Your task to perform on an android device: Open the Play Movies app and select the watchlist tab. Image 0: 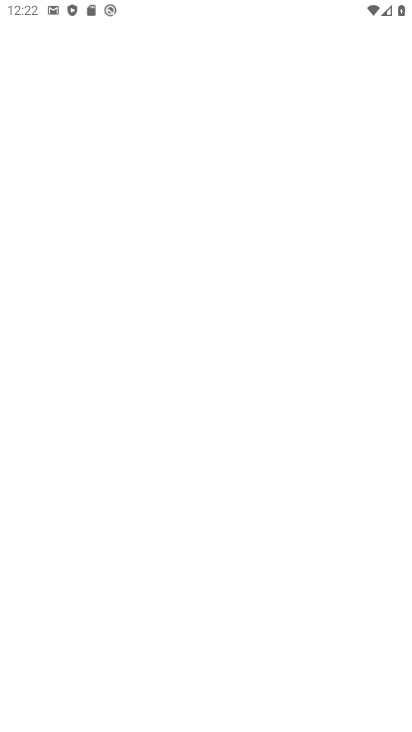
Step 0: click (140, 625)
Your task to perform on an android device: Open the Play Movies app and select the watchlist tab. Image 1: 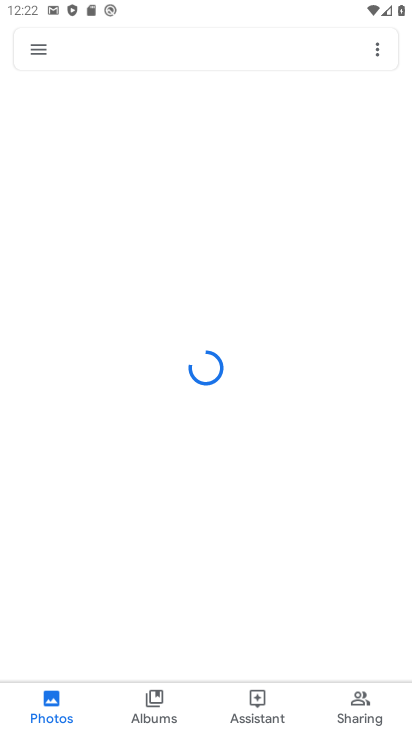
Step 1: press home button
Your task to perform on an android device: Open the Play Movies app and select the watchlist tab. Image 2: 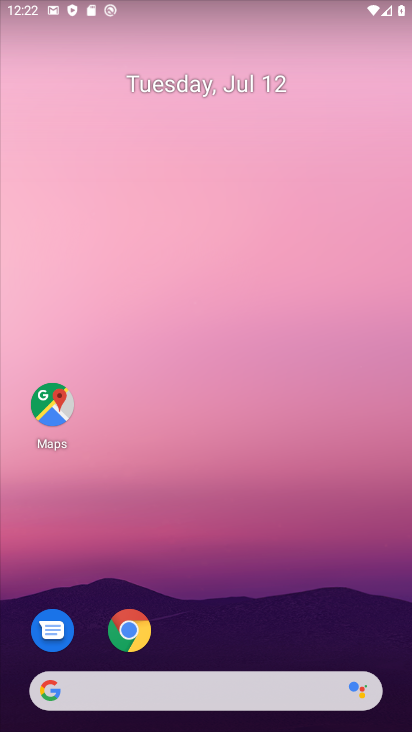
Step 2: drag from (282, 708) to (208, 196)
Your task to perform on an android device: Open the Play Movies app and select the watchlist tab. Image 3: 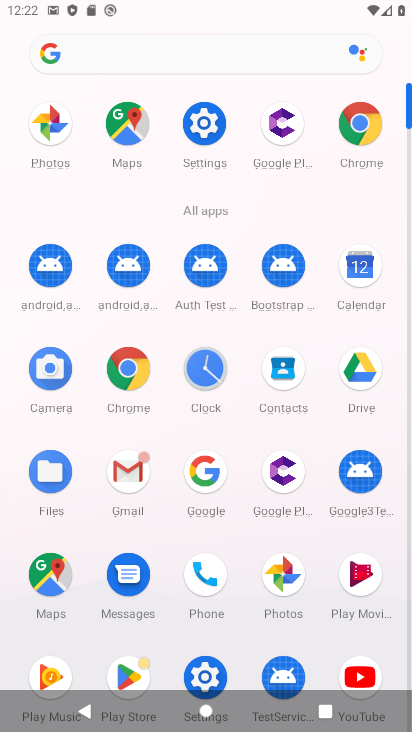
Step 3: click (359, 597)
Your task to perform on an android device: Open the Play Movies app and select the watchlist tab. Image 4: 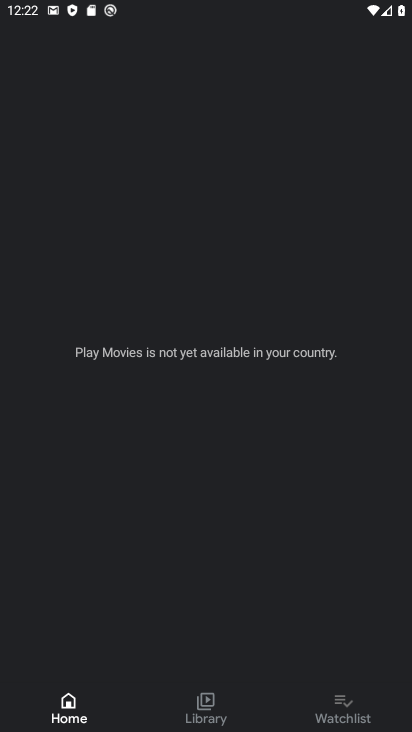
Step 4: click (348, 696)
Your task to perform on an android device: Open the Play Movies app and select the watchlist tab. Image 5: 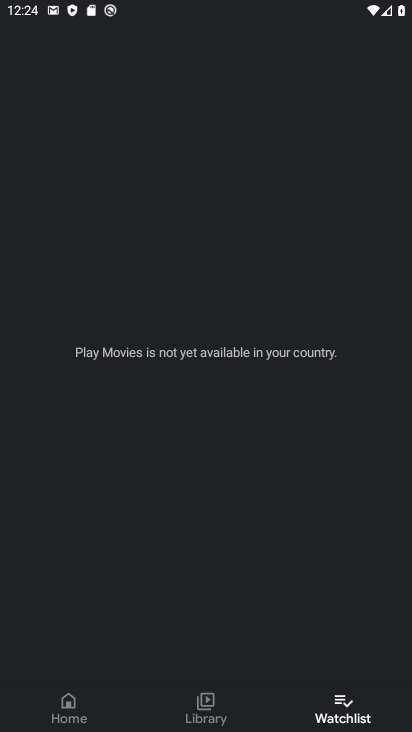
Step 5: task complete